Your task to perform on an android device: turn off javascript in the chrome app Image 0: 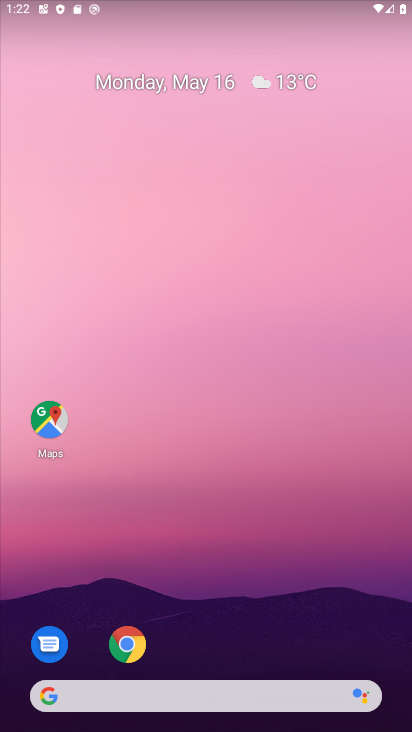
Step 0: drag from (240, 699) to (275, 196)
Your task to perform on an android device: turn off javascript in the chrome app Image 1: 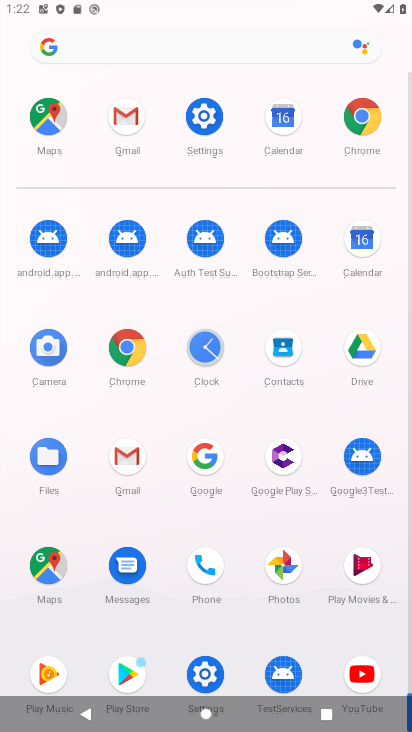
Step 1: click (353, 153)
Your task to perform on an android device: turn off javascript in the chrome app Image 2: 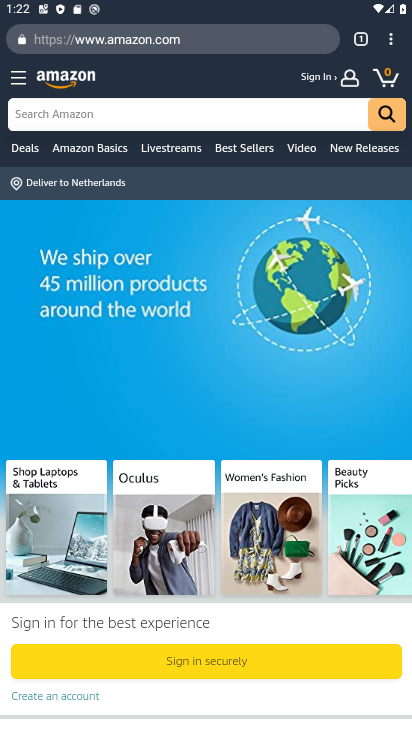
Step 2: click (392, 39)
Your task to perform on an android device: turn off javascript in the chrome app Image 3: 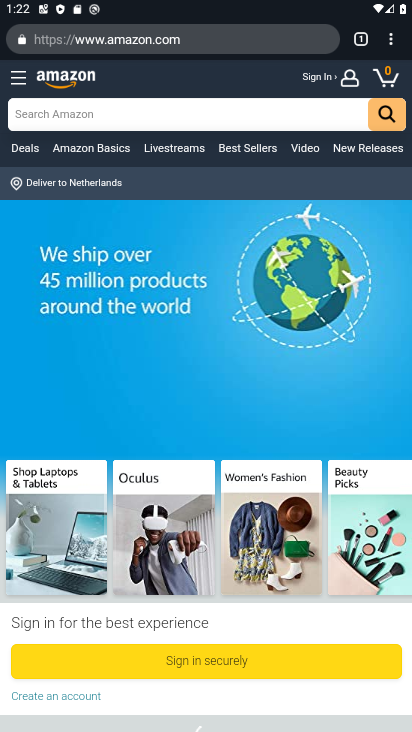
Step 3: click (394, 45)
Your task to perform on an android device: turn off javascript in the chrome app Image 4: 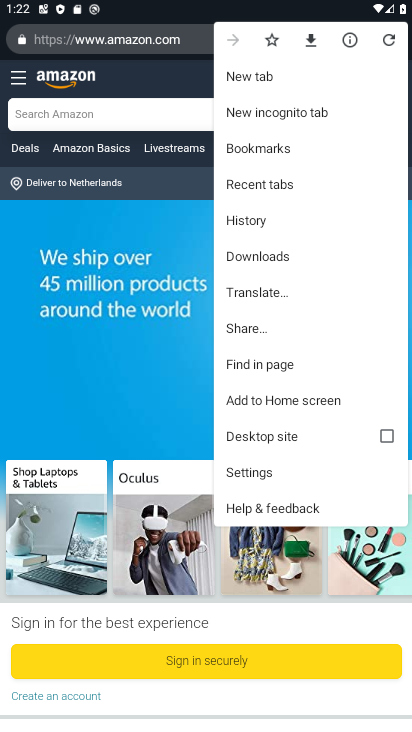
Step 4: drag from (287, 355) to (319, 97)
Your task to perform on an android device: turn off javascript in the chrome app Image 5: 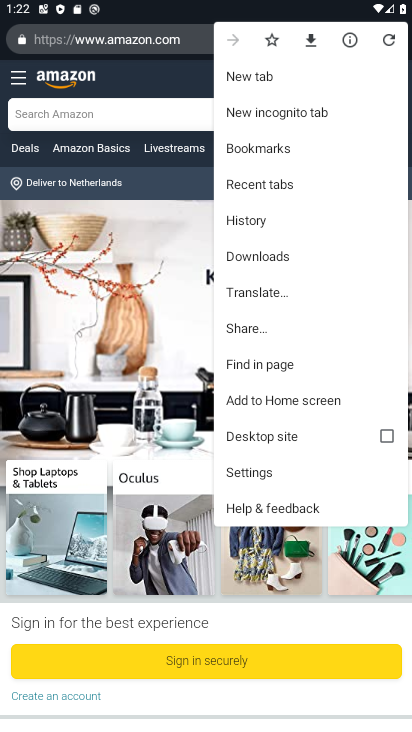
Step 5: click (268, 478)
Your task to perform on an android device: turn off javascript in the chrome app Image 6: 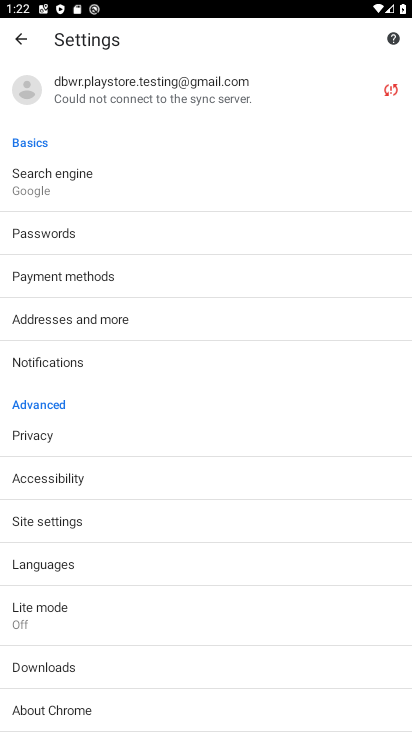
Step 6: drag from (228, 575) to (245, 399)
Your task to perform on an android device: turn off javascript in the chrome app Image 7: 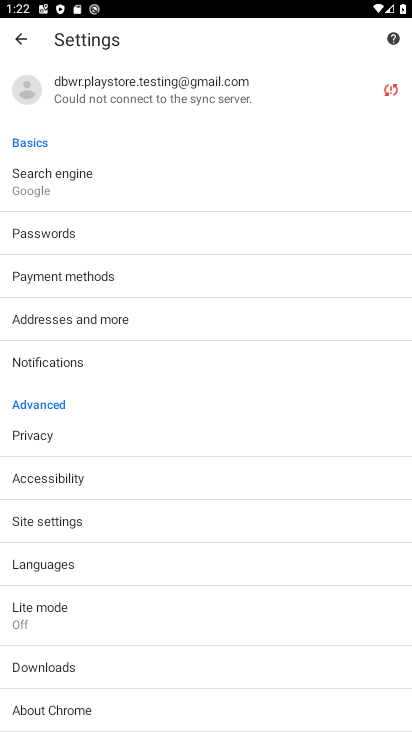
Step 7: click (81, 529)
Your task to perform on an android device: turn off javascript in the chrome app Image 8: 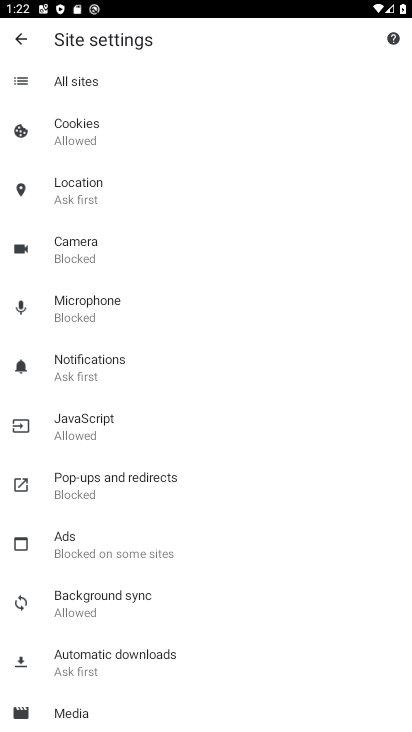
Step 8: click (155, 436)
Your task to perform on an android device: turn off javascript in the chrome app Image 9: 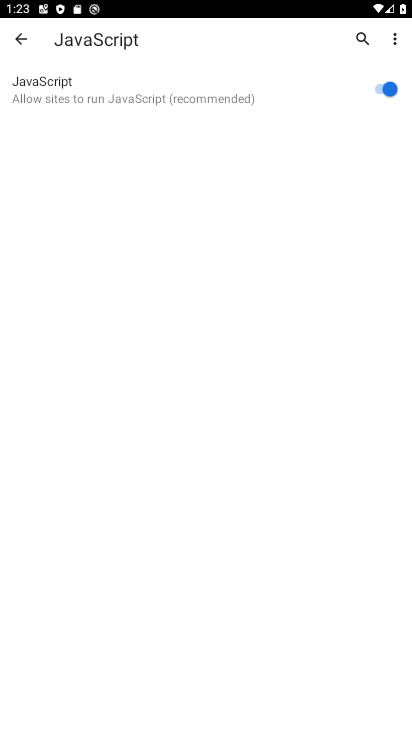
Step 9: click (375, 100)
Your task to perform on an android device: turn off javascript in the chrome app Image 10: 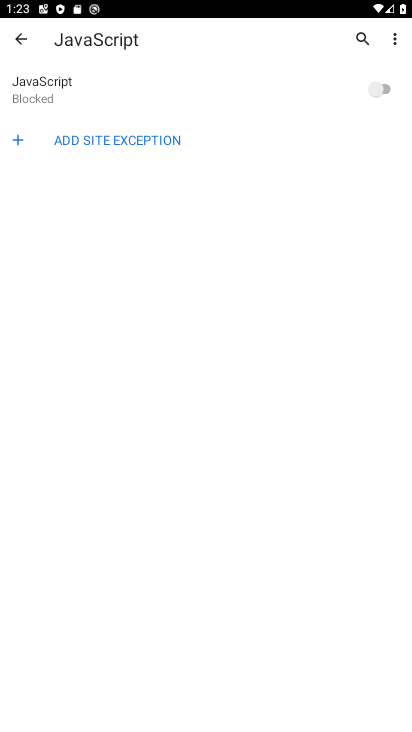
Step 10: task complete